Your task to perform on an android device: choose inbox layout in the gmail app Image 0: 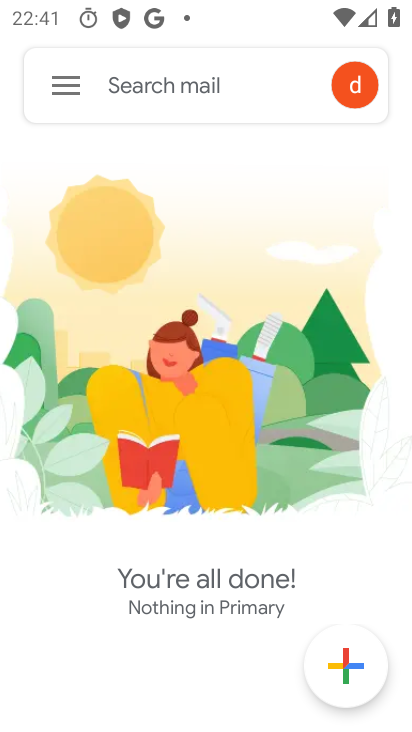
Step 0: press back button
Your task to perform on an android device: choose inbox layout in the gmail app Image 1: 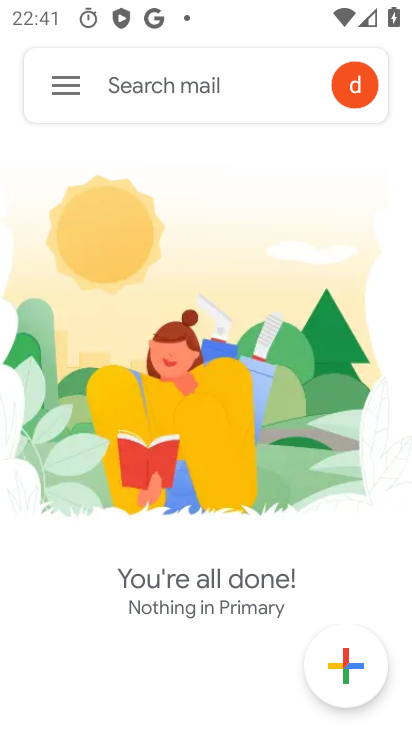
Step 1: press home button
Your task to perform on an android device: choose inbox layout in the gmail app Image 2: 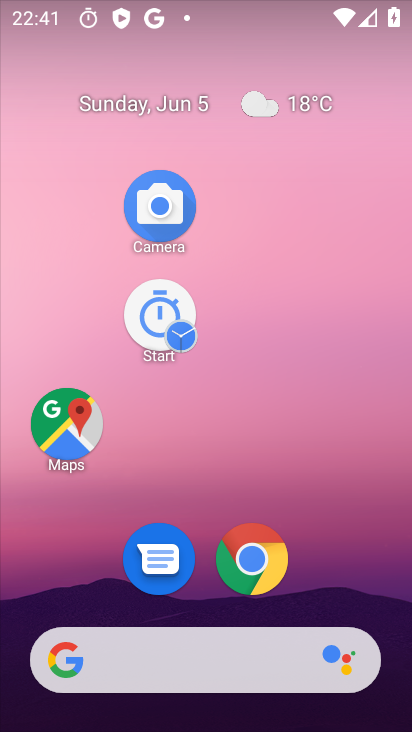
Step 2: drag from (234, 706) to (169, 65)
Your task to perform on an android device: choose inbox layout in the gmail app Image 3: 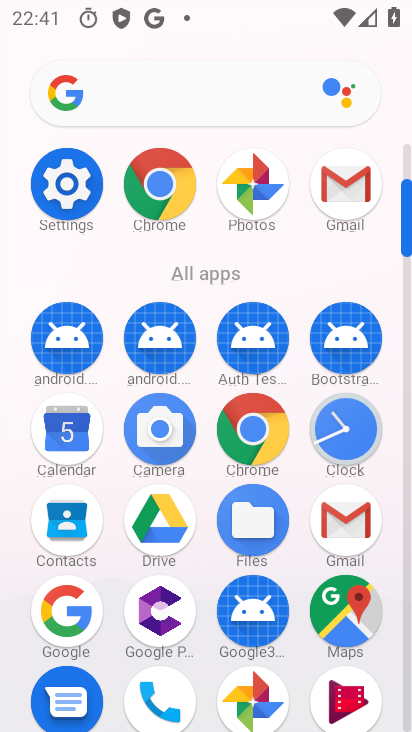
Step 3: click (344, 524)
Your task to perform on an android device: choose inbox layout in the gmail app Image 4: 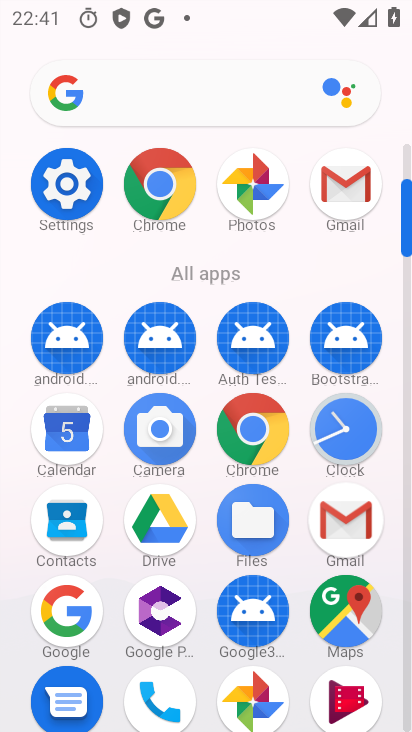
Step 4: click (344, 524)
Your task to perform on an android device: choose inbox layout in the gmail app Image 5: 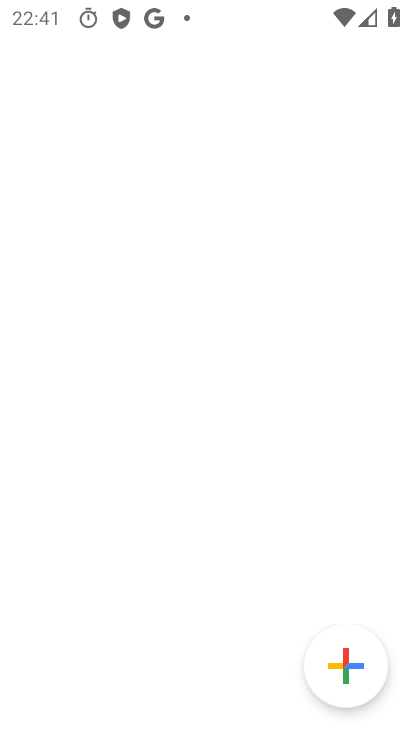
Step 5: click (340, 523)
Your task to perform on an android device: choose inbox layout in the gmail app Image 6: 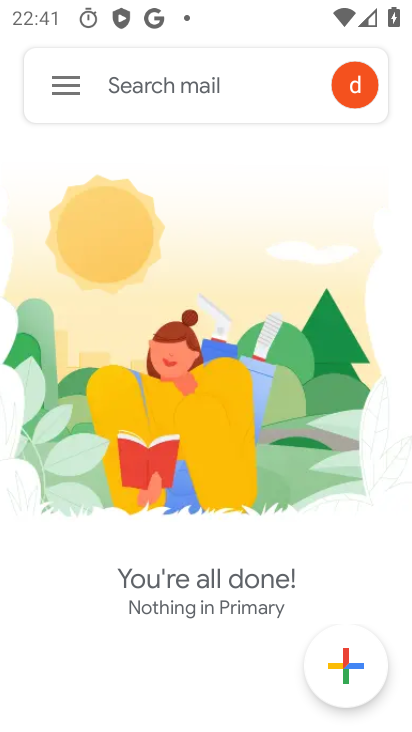
Step 6: click (71, 91)
Your task to perform on an android device: choose inbox layout in the gmail app Image 7: 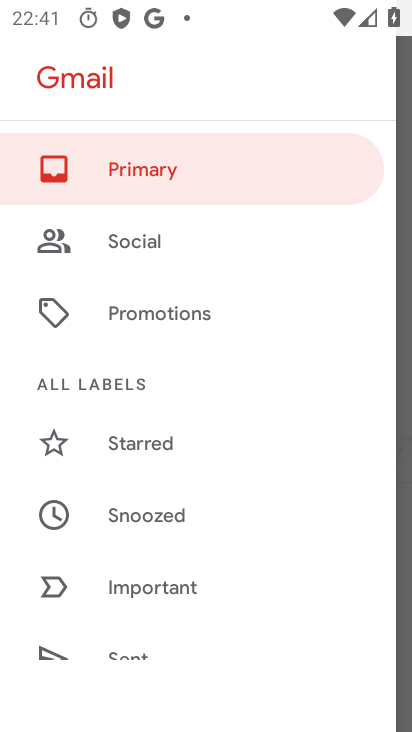
Step 7: drag from (212, 453) to (214, 155)
Your task to perform on an android device: choose inbox layout in the gmail app Image 8: 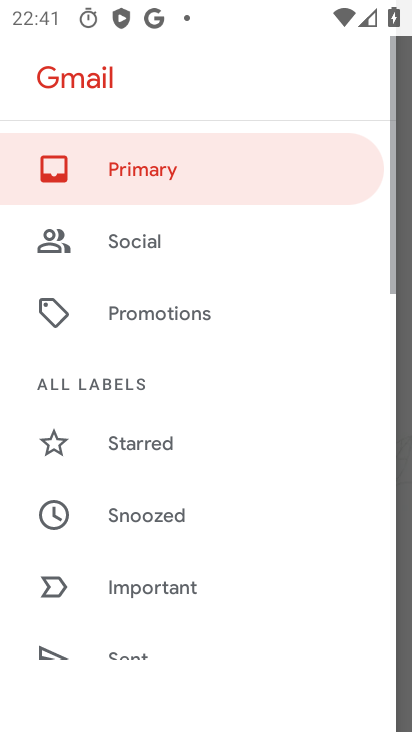
Step 8: drag from (268, 436) to (277, 107)
Your task to perform on an android device: choose inbox layout in the gmail app Image 9: 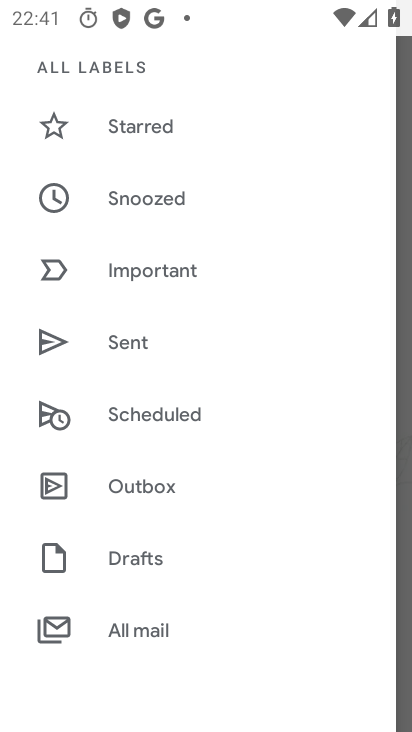
Step 9: click (142, 629)
Your task to perform on an android device: choose inbox layout in the gmail app Image 10: 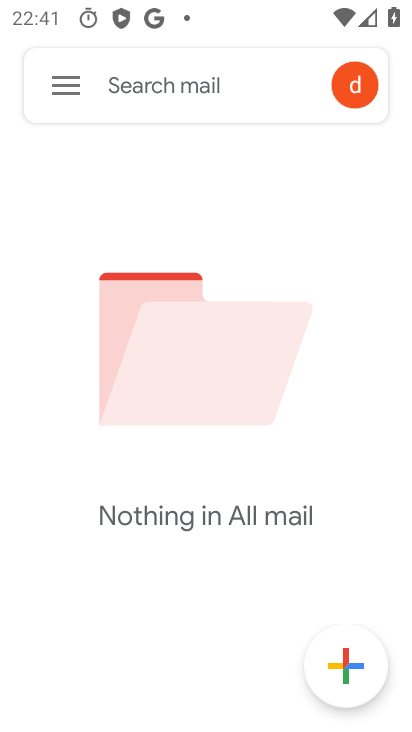
Step 10: click (69, 100)
Your task to perform on an android device: choose inbox layout in the gmail app Image 11: 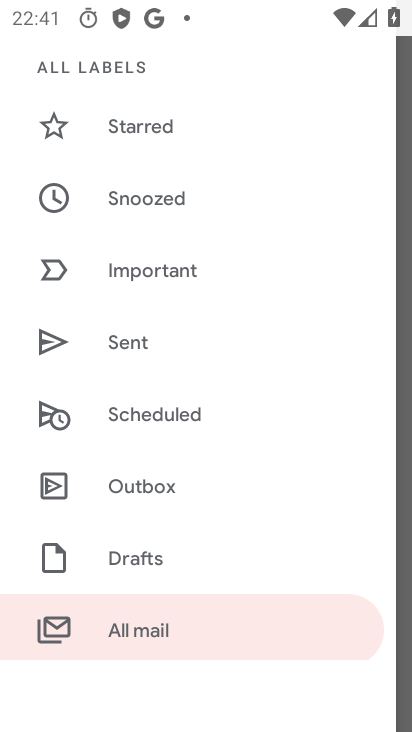
Step 11: drag from (245, 463) to (246, 153)
Your task to perform on an android device: choose inbox layout in the gmail app Image 12: 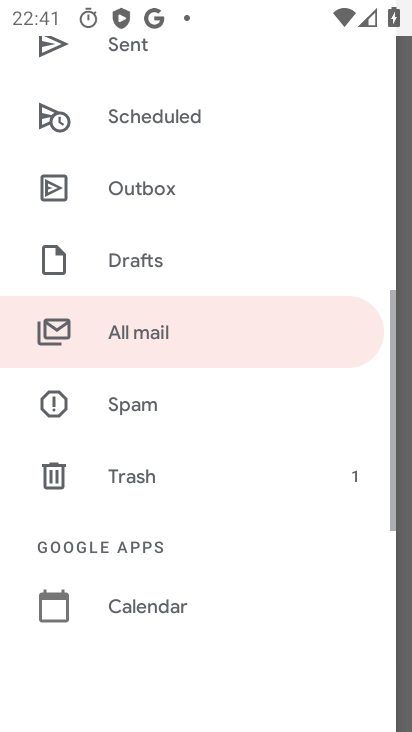
Step 12: drag from (250, 261) to (224, 132)
Your task to perform on an android device: choose inbox layout in the gmail app Image 13: 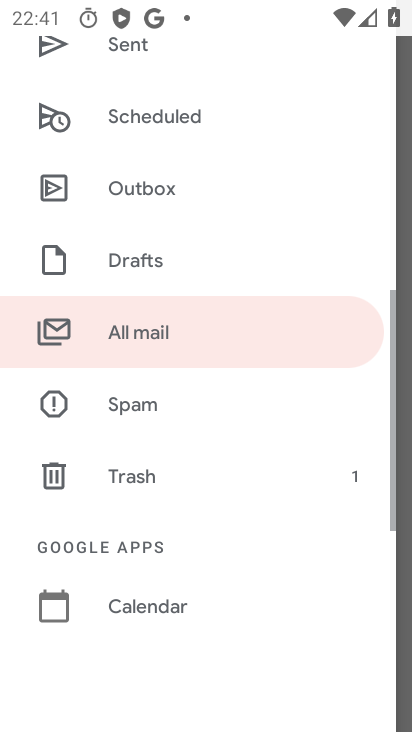
Step 13: drag from (215, 544) to (201, 132)
Your task to perform on an android device: choose inbox layout in the gmail app Image 14: 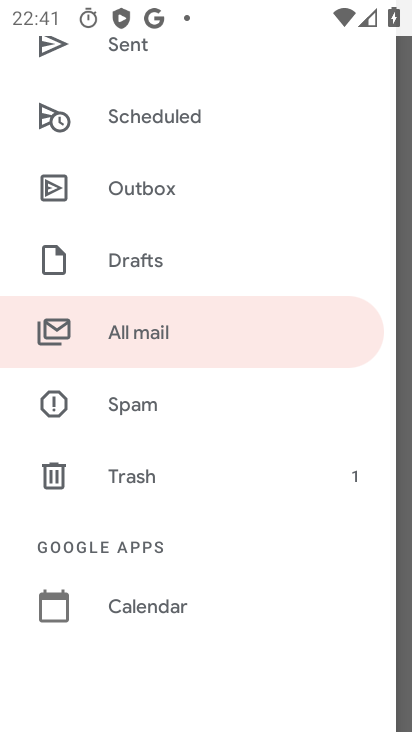
Step 14: drag from (279, 479) to (280, 108)
Your task to perform on an android device: choose inbox layout in the gmail app Image 15: 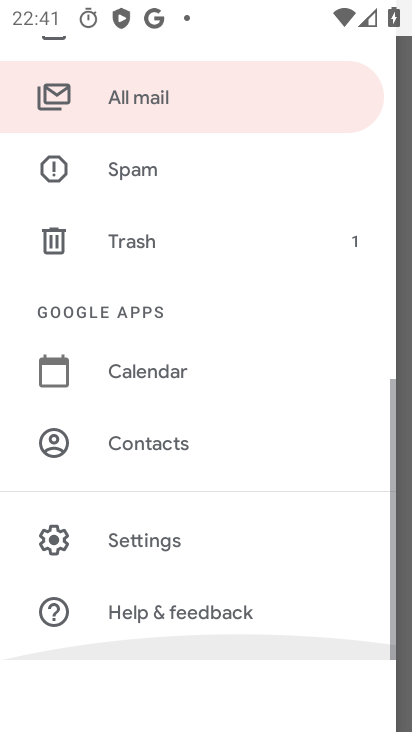
Step 15: drag from (211, 500) to (203, 132)
Your task to perform on an android device: choose inbox layout in the gmail app Image 16: 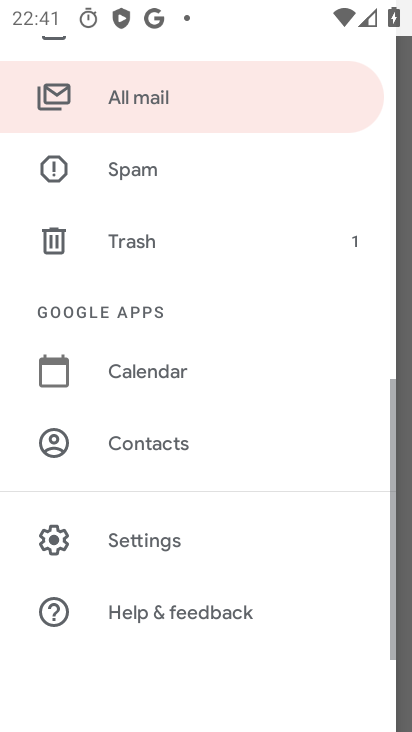
Step 16: click (131, 546)
Your task to perform on an android device: choose inbox layout in the gmail app Image 17: 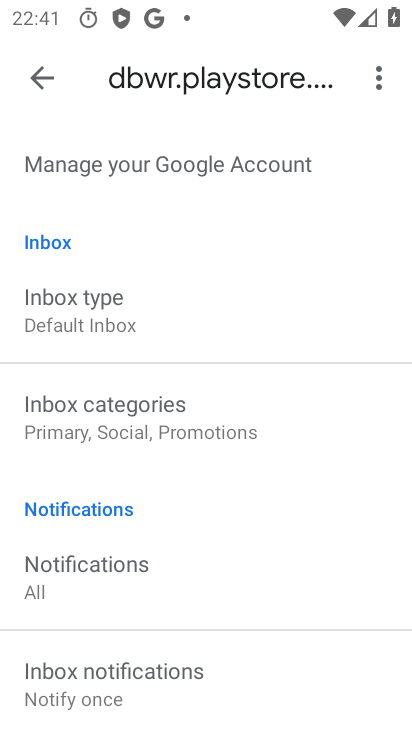
Step 17: click (68, 321)
Your task to perform on an android device: choose inbox layout in the gmail app Image 18: 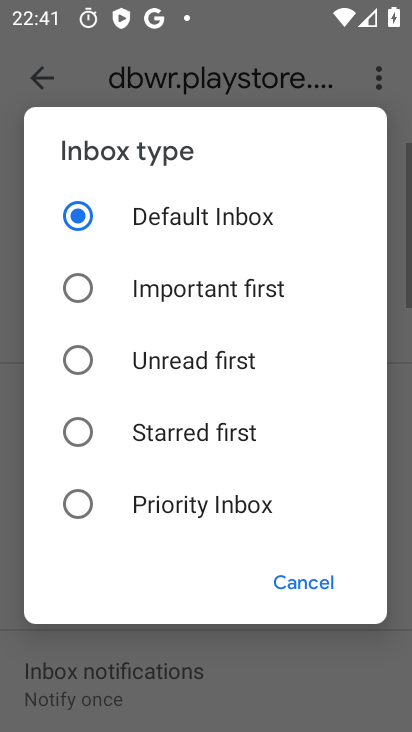
Step 18: task complete